Your task to perform on an android device: Go to location settings Image 0: 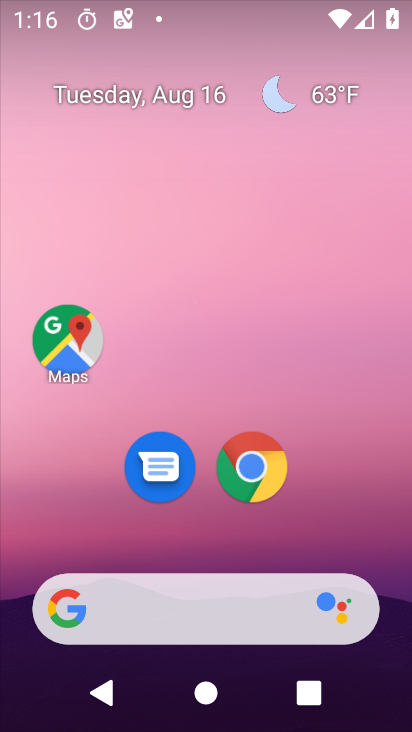
Step 0: press home button
Your task to perform on an android device: Go to location settings Image 1: 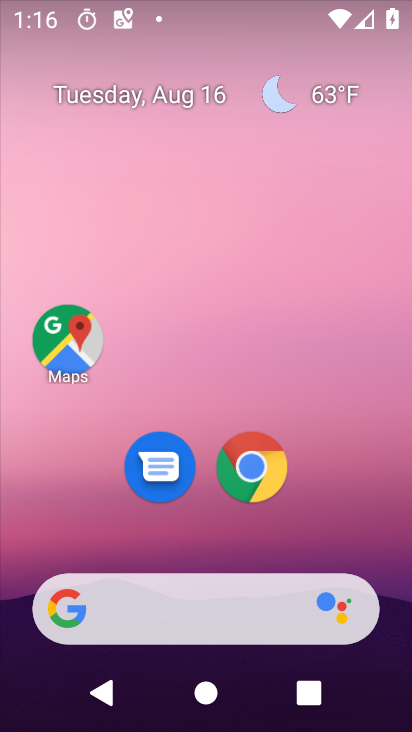
Step 1: drag from (347, 533) to (333, 163)
Your task to perform on an android device: Go to location settings Image 2: 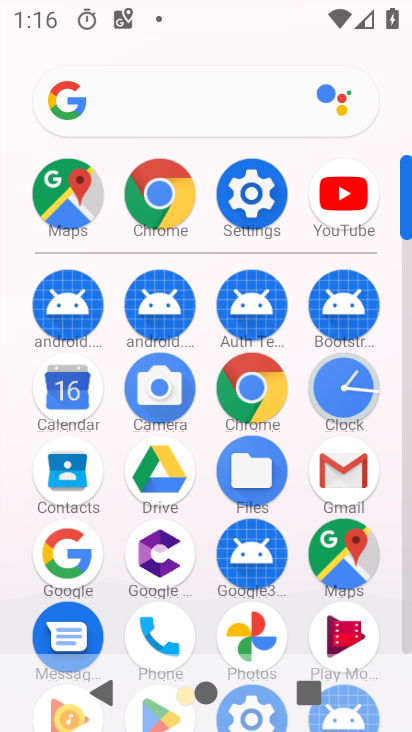
Step 2: click (251, 194)
Your task to perform on an android device: Go to location settings Image 3: 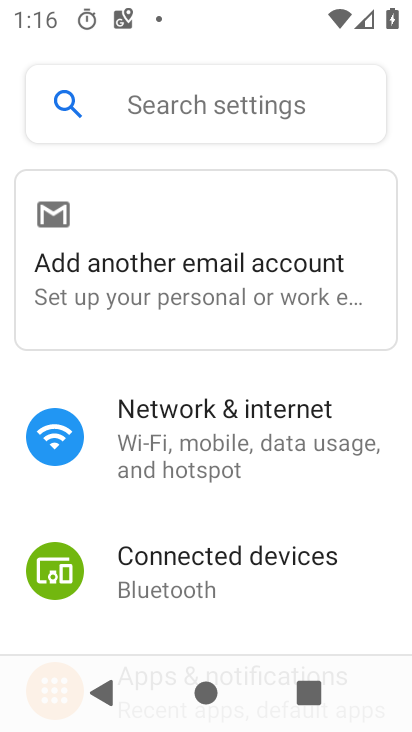
Step 3: drag from (374, 559) to (377, 427)
Your task to perform on an android device: Go to location settings Image 4: 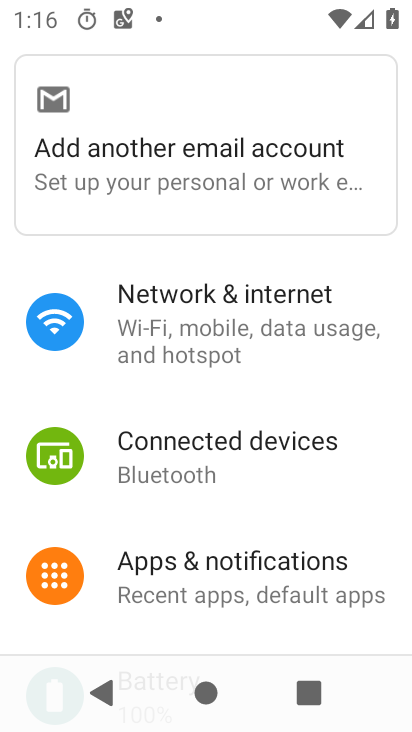
Step 4: drag from (366, 581) to (352, 441)
Your task to perform on an android device: Go to location settings Image 5: 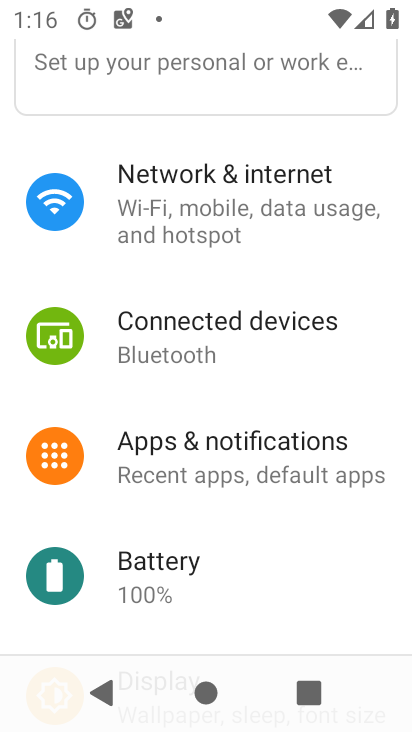
Step 5: drag from (344, 588) to (361, 446)
Your task to perform on an android device: Go to location settings Image 6: 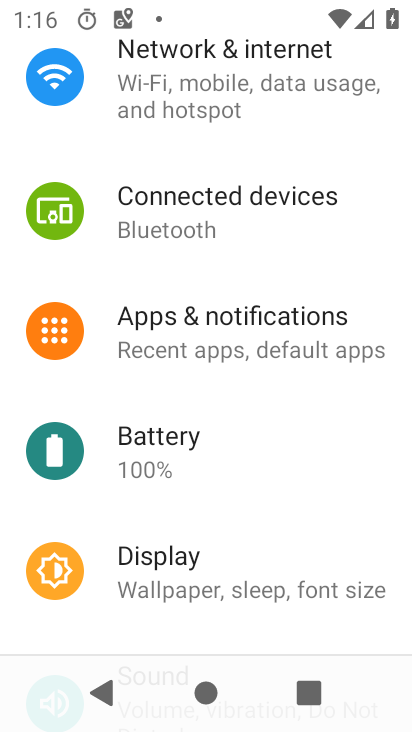
Step 6: drag from (336, 563) to (332, 432)
Your task to perform on an android device: Go to location settings Image 7: 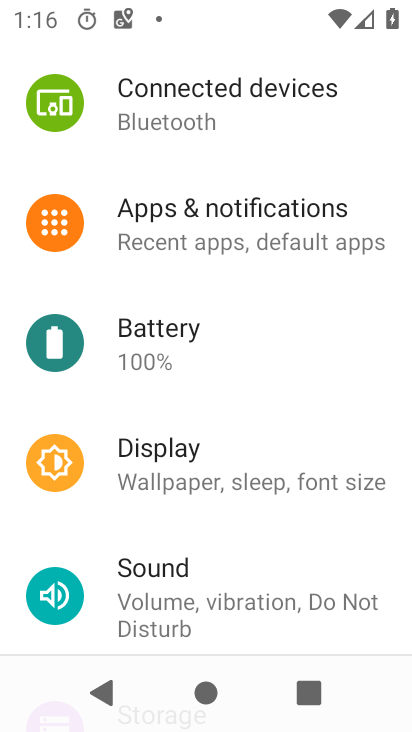
Step 7: drag from (329, 565) to (330, 423)
Your task to perform on an android device: Go to location settings Image 8: 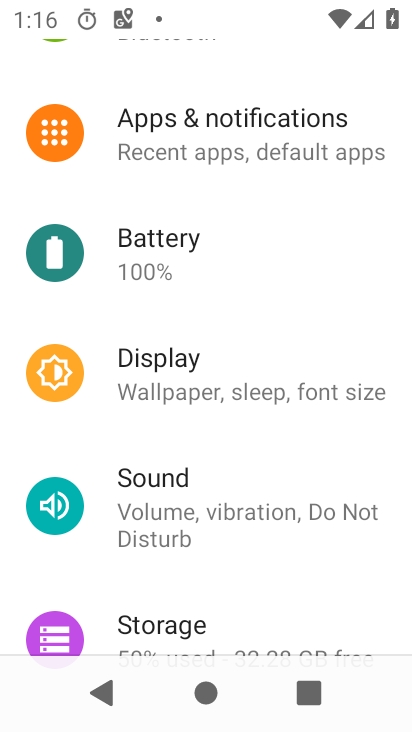
Step 8: drag from (302, 574) to (307, 420)
Your task to perform on an android device: Go to location settings Image 9: 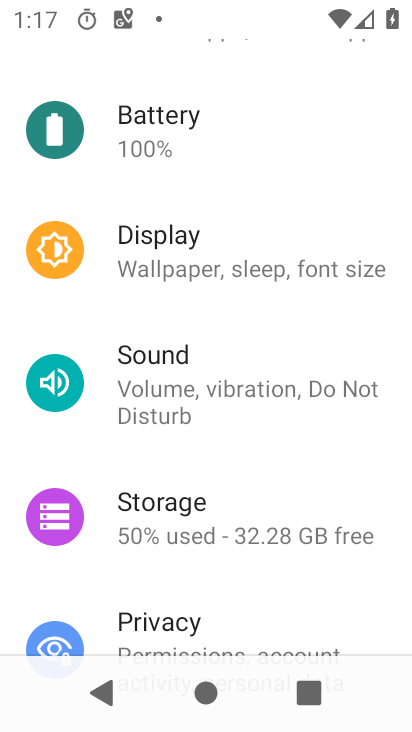
Step 9: drag from (267, 620) to (276, 419)
Your task to perform on an android device: Go to location settings Image 10: 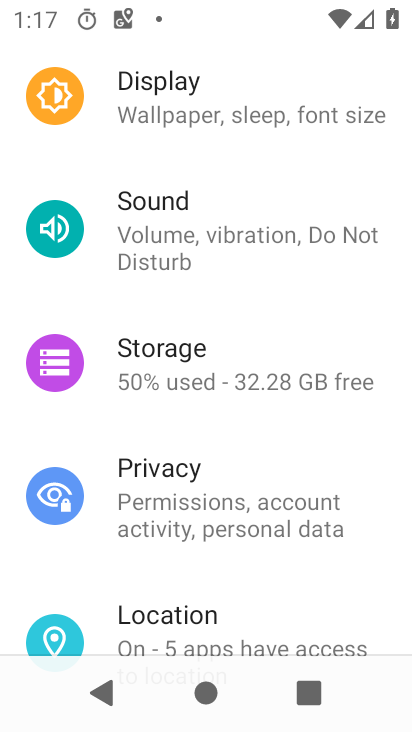
Step 10: drag from (271, 594) to (275, 336)
Your task to perform on an android device: Go to location settings Image 11: 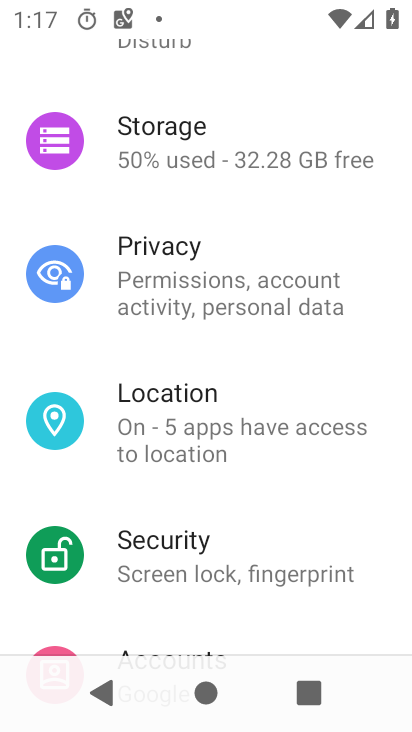
Step 11: drag from (255, 521) to (255, 352)
Your task to perform on an android device: Go to location settings Image 12: 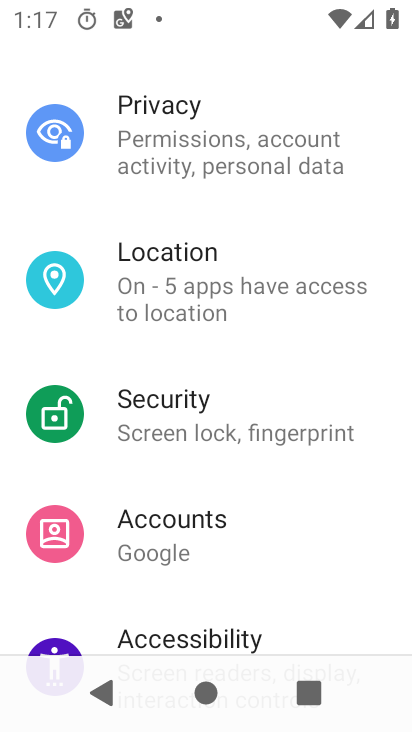
Step 12: drag from (281, 540) to (281, 409)
Your task to perform on an android device: Go to location settings Image 13: 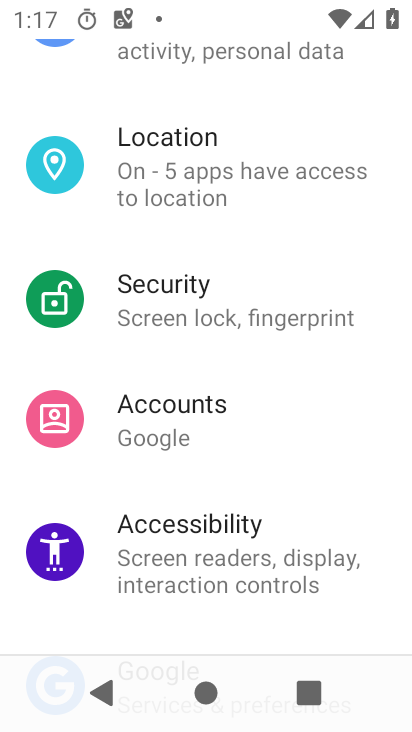
Step 13: click (223, 172)
Your task to perform on an android device: Go to location settings Image 14: 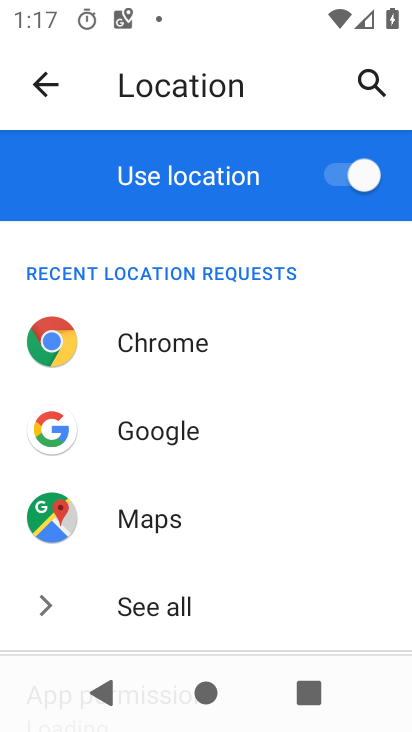
Step 14: task complete